Your task to perform on an android device: see creations saved in the google photos Image 0: 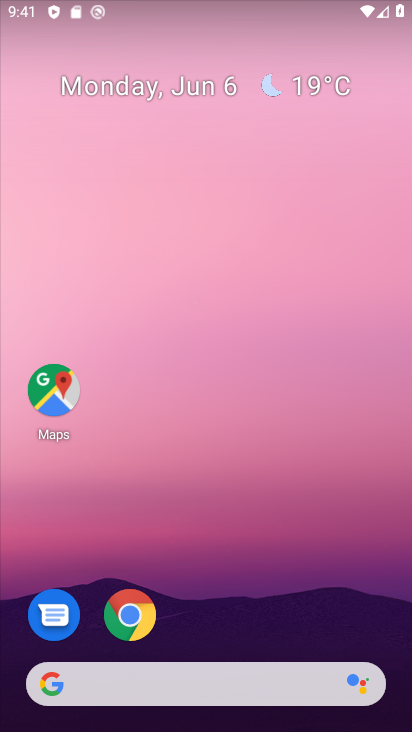
Step 0: drag from (252, 623) to (127, 20)
Your task to perform on an android device: see creations saved in the google photos Image 1: 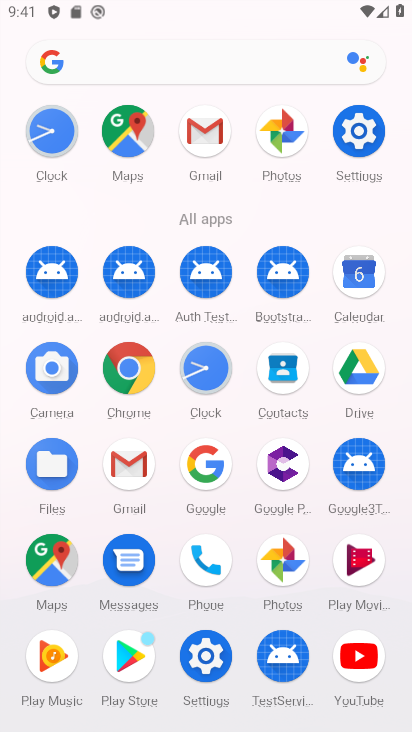
Step 1: click (294, 550)
Your task to perform on an android device: see creations saved in the google photos Image 2: 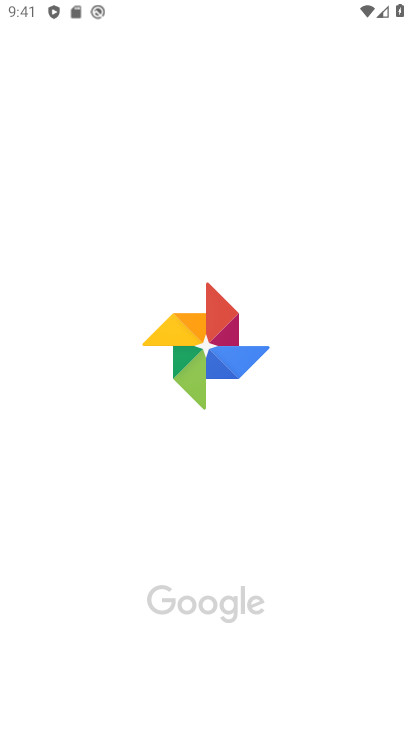
Step 2: task complete